Your task to perform on an android device: toggle sleep mode Image 0: 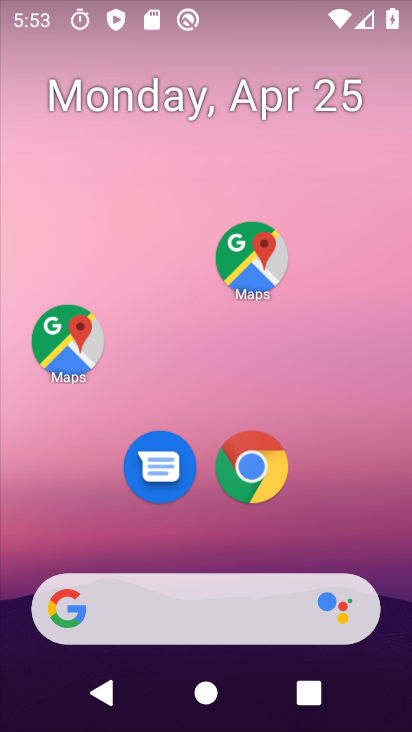
Step 0: drag from (340, 545) to (302, 2)
Your task to perform on an android device: toggle sleep mode Image 1: 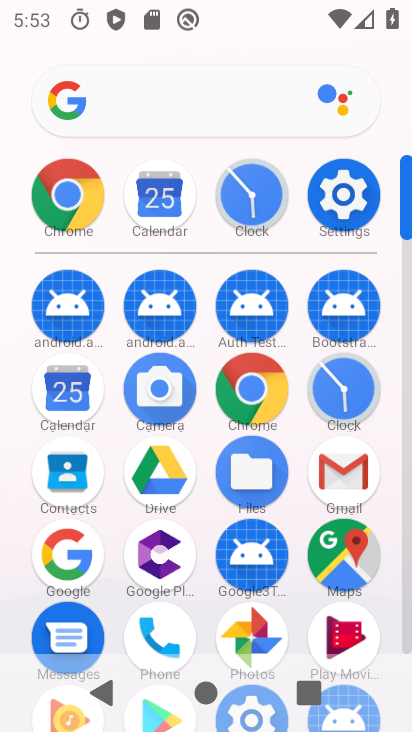
Step 1: click (349, 202)
Your task to perform on an android device: toggle sleep mode Image 2: 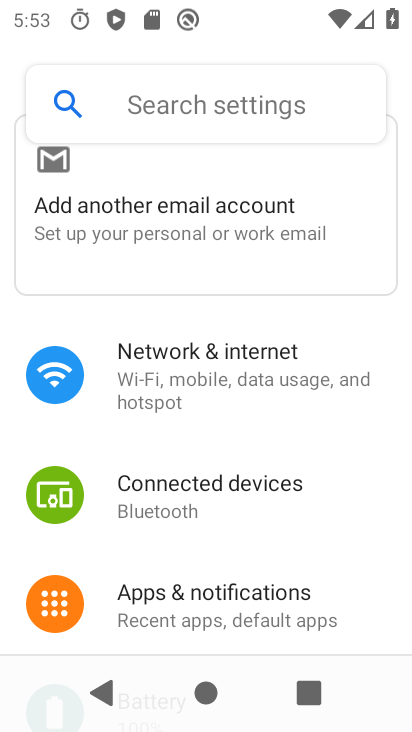
Step 2: task complete